Your task to perform on an android device: move a message to another label in the gmail app Image 0: 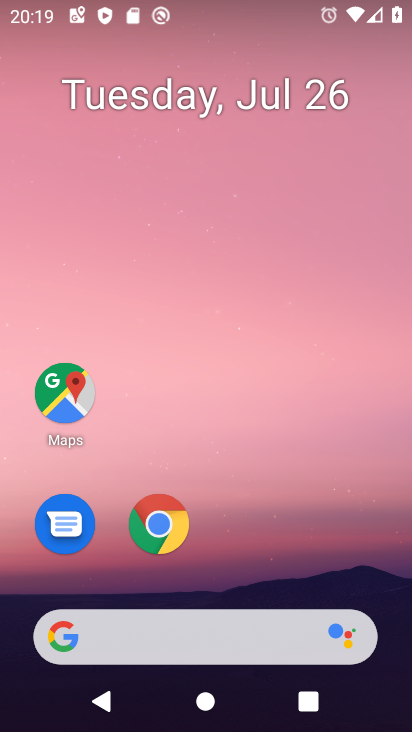
Step 0: drag from (252, 545) to (261, 10)
Your task to perform on an android device: move a message to another label in the gmail app Image 1: 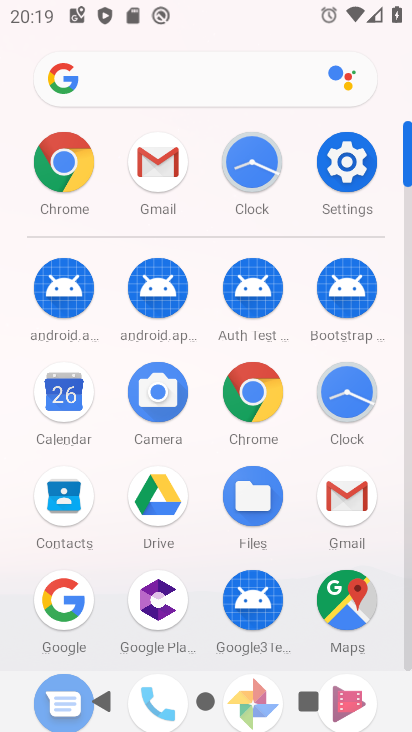
Step 1: click (170, 166)
Your task to perform on an android device: move a message to another label in the gmail app Image 2: 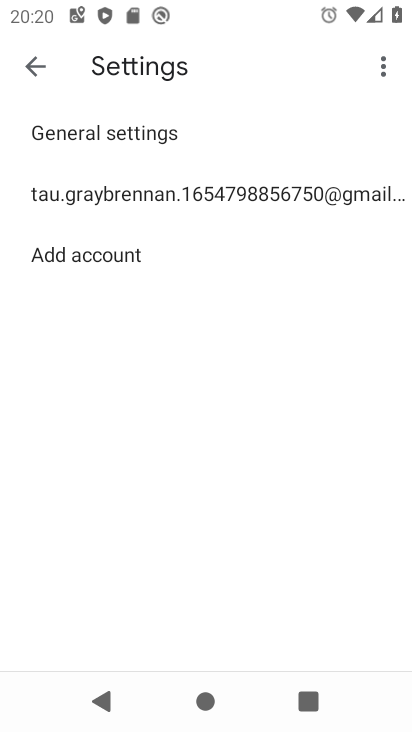
Step 2: click (32, 60)
Your task to perform on an android device: move a message to another label in the gmail app Image 3: 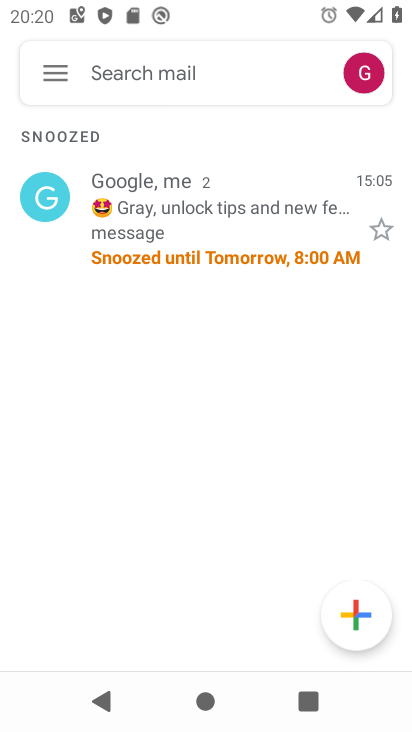
Step 3: click (205, 222)
Your task to perform on an android device: move a message to another label in the gmail app Image 4: 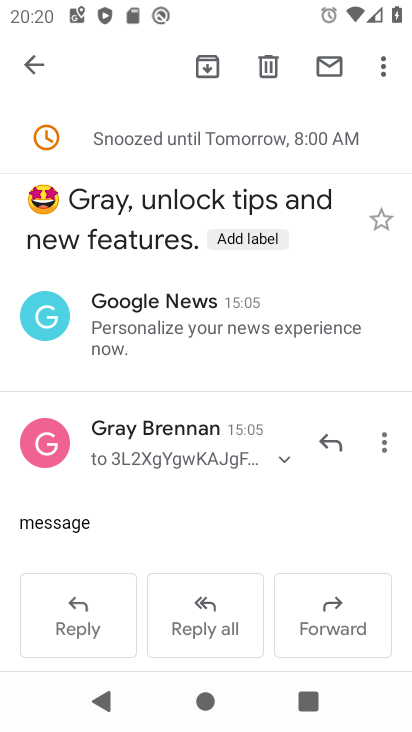
Step 4: click (383, 70)
Your task to perform on an android device: move a message to another label in the gmail app Image 5: 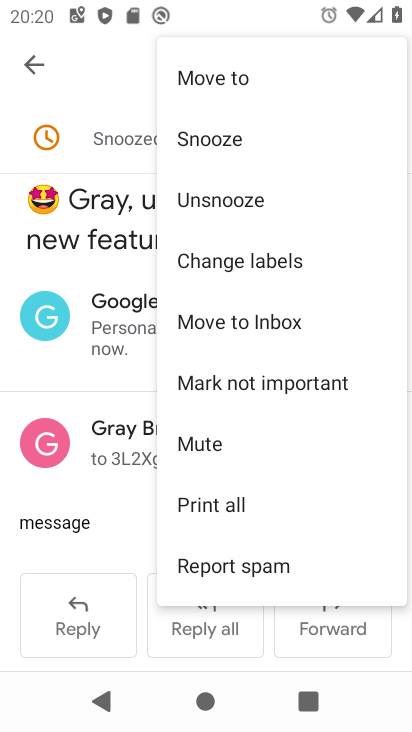
Step 5: click (228, 267)
Your task to perform on an android device: move a message to another label in the gmail app Image 6: 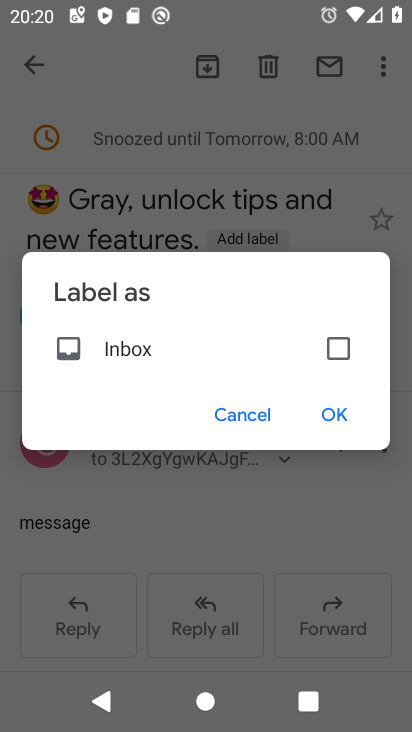
Step 6: click (337, 344)
Your task to perform on an android device: move a message to another label in the gmail app Image 7: 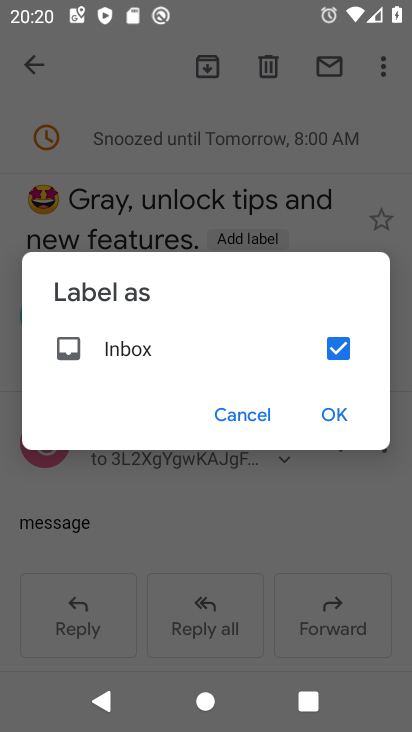
Step 7: click (338, 413)
Your task to perform on an android device: move a message to another label in the gmail app Image 8: 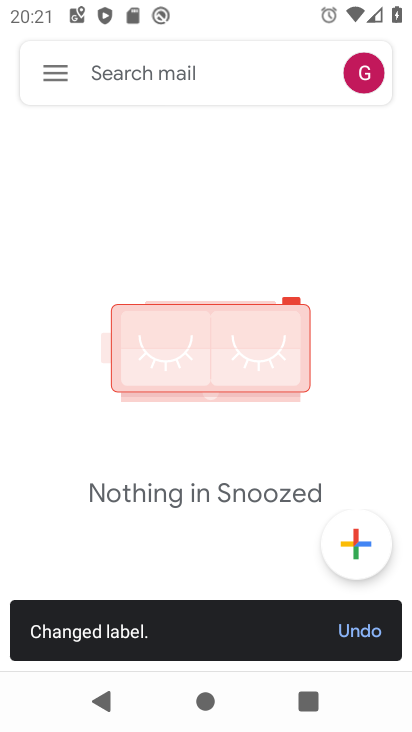
Step 8: task complete